Your task to perform on an android device: clear all cookies in the chrome app Image 0: 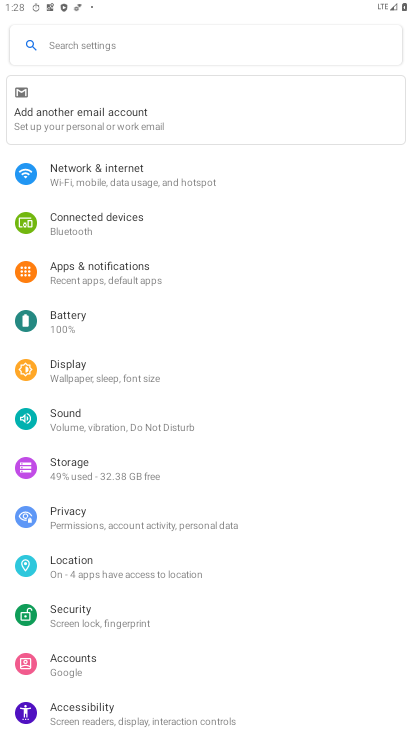
Step 0: press home button
Your task to perform on an android device: clear all cookies in the chrome app Image 1: 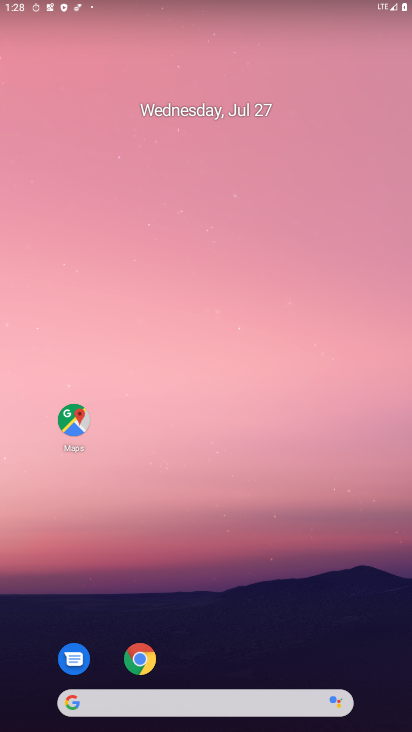
Step 1: drag from (288, 630) to (332, 62)
Your task to perform on an android device: clear all cookies in the chrome app Image 2: 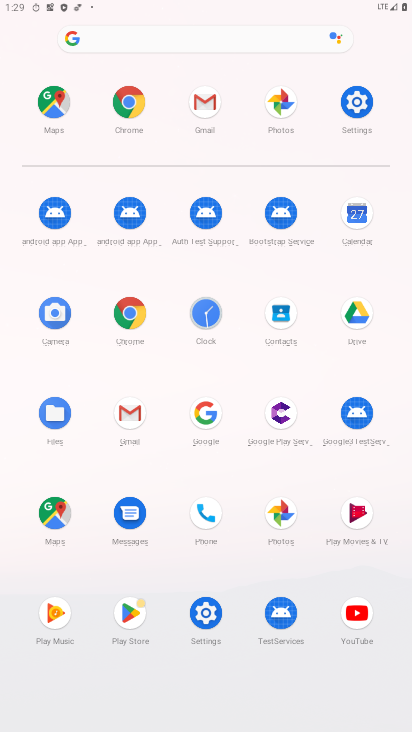
Step 2: click (126, 309)
Your task to perform on an android device: clear all cookies in the chrome app Image 3: 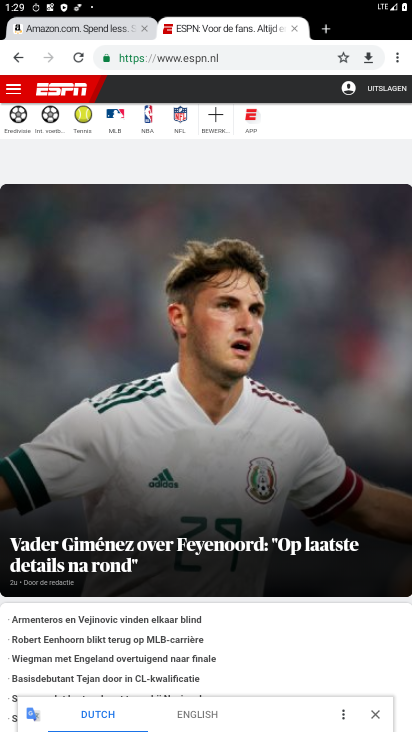
Step 3: drag from (396, 58) to (268, 347)
Your task to perform on an android device: clear all cookies in the chrome app Image 4: 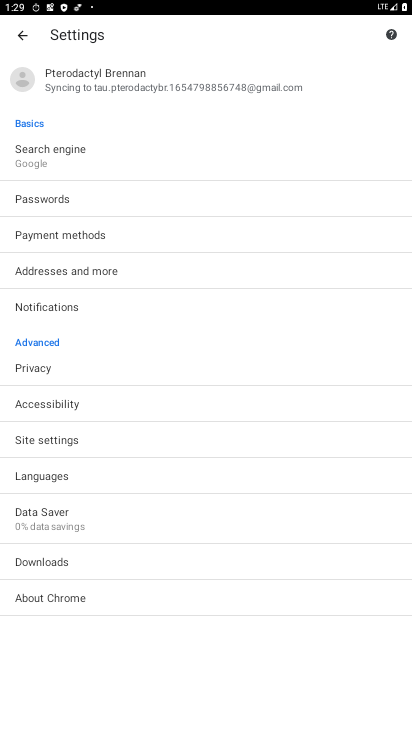
Step 4: click (35, 361)
Your task to perform on an android device: clear all cookies in the chrome app Image 5: 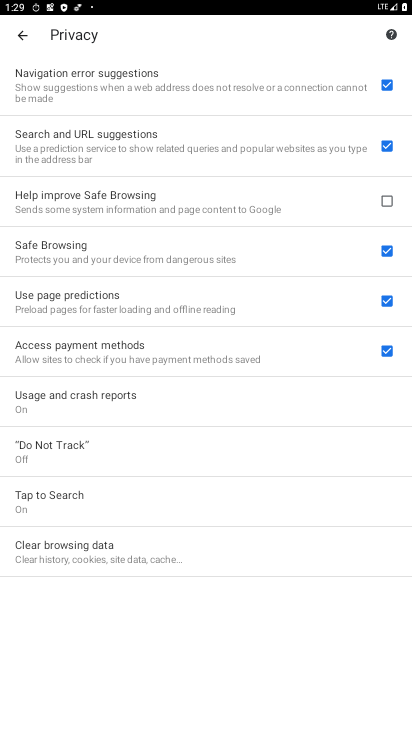
Step 5: click (104, 550)
Your task to perform on an android device: clear all cookies in the chrome app Image 6: 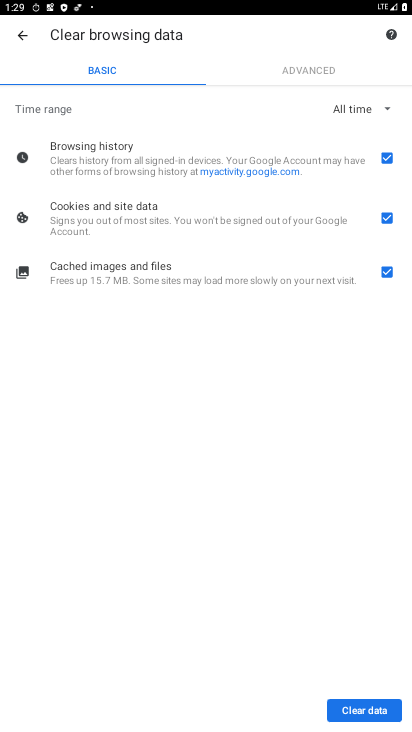
Step 6: click (365, 701)
Your task to perform on an android device: clear all cookies in the chrome app Image 7: 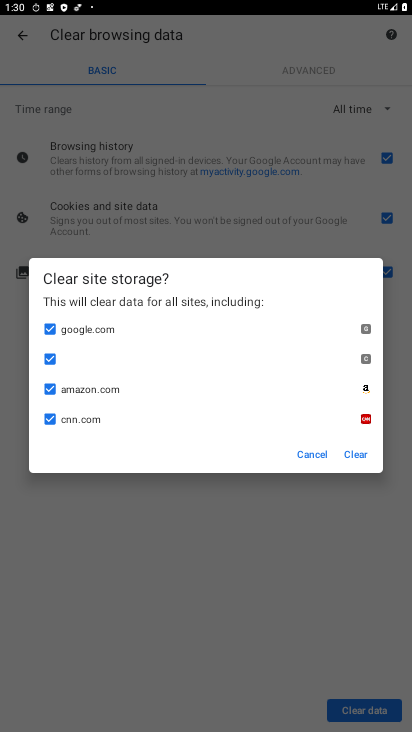
Step 7: click (356, 447)
Your task to perform on an android device: clear all cookies in the chrome app Image 8: 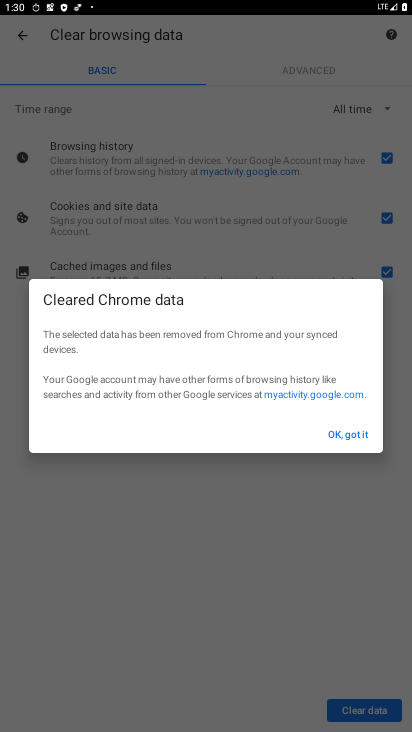
Step 8: click (357, 433)
Your task to perform on an android device: clear all cookies in the chrome app Image 9: 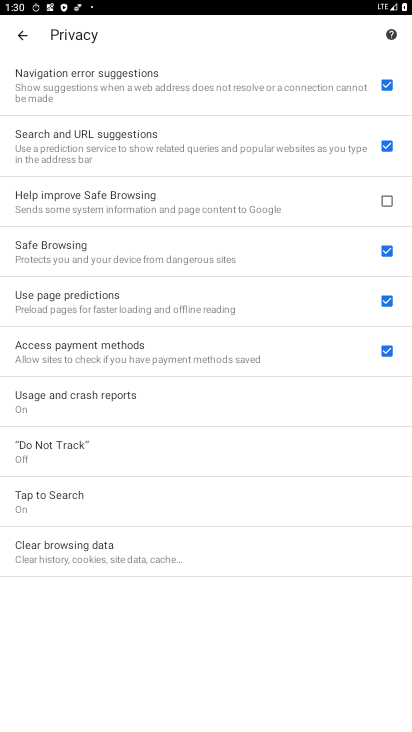
Step 9: task complete